Your task to perform on an android device: open app "Microsoft Excel" (install if not already installed) and enter user name: "kidnappers@icloud.com" and password: "Bessemerizes" Image 0: 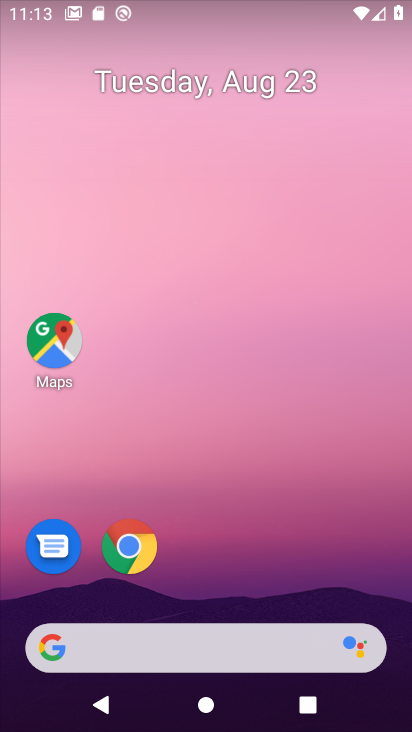
Step 0: drag from (182, 608) to (223, 208)
Your task to perform on an android device: open app "Microsoft Excel" (install if not already installed) and enter user name: "kidnappers@icloud.com" and password: "Bessemerizes" Image 1: 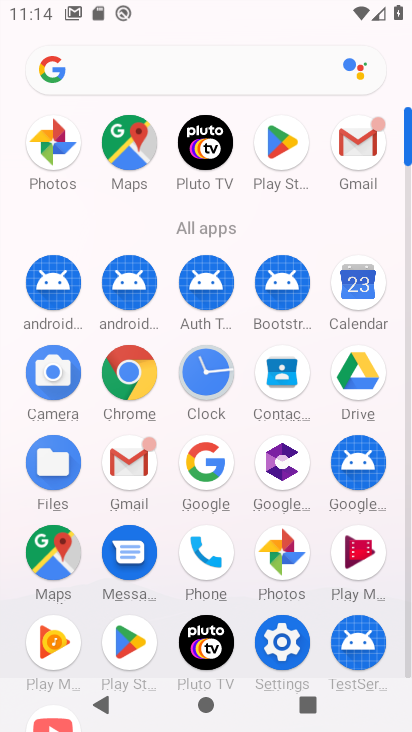
Step 1: click (271, 144)
Your task to perform on an android device: open app "Microsoft Excel" (install if not already installed) and enter user name: "kidnappers@icloud.com" and password: "Bessemerizes" Image 2: 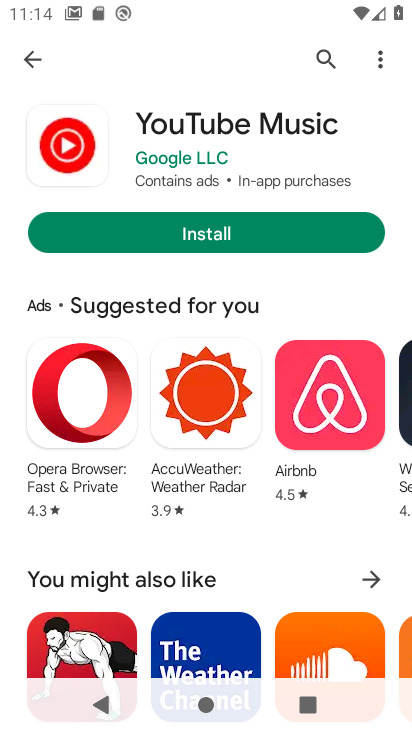
Step 2: click (19, 57)
Your task to perform on an android device: open app "Microsoft Excel" (install if not already installed) and enter user name: "kidnappers@icloud.com" and password: "Bessemerizes" Image 3: 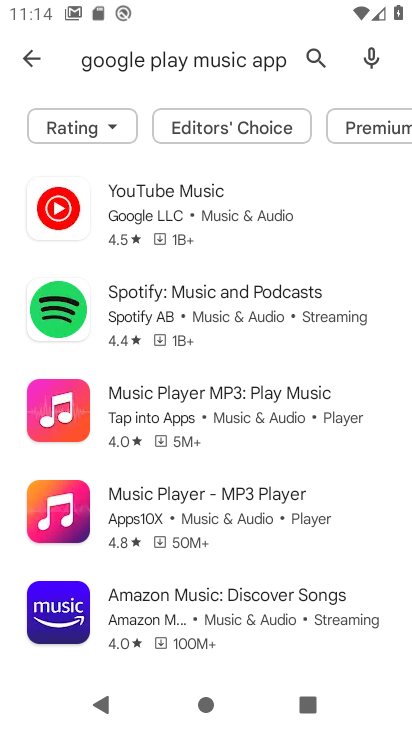
Step 3: click (30, 62)
Your task to perform on an android device: open app "Microsoft Excel" (install if not already installed) and enter user name: "kidnappers@icloud.com" and password: "Bessemerizes" Image 4: 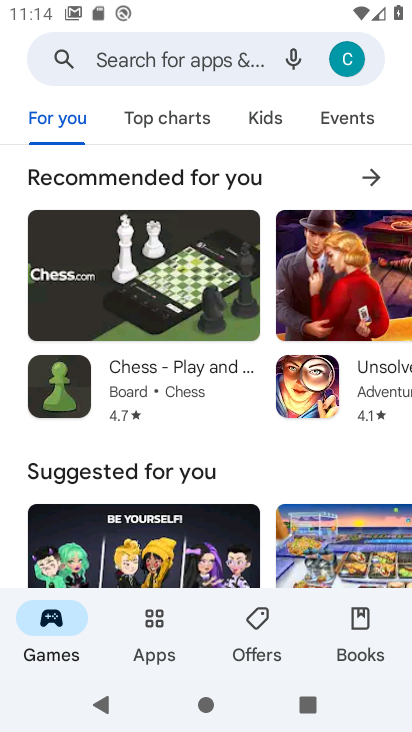
Step 4: click (180, 50)
Your task to perform on an android device: open app "Microsoft Excel" (install if not already installed) and enter user name: "kidnappers@icloud.com" and password: "Bessemerizes" Image 5: 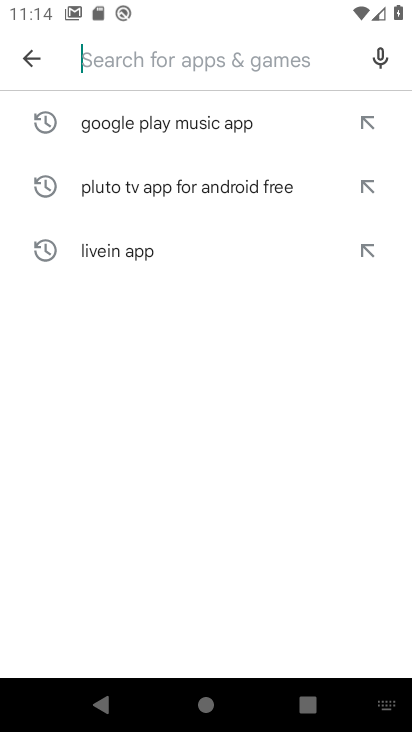
Step 5: type "Microsoft Excel "
Your task to perform on an android device: open app "Microsoft Excel" (install if not already installed) and enter user name: "kidnappers@icloud.com" and password: "Bessemerizes" Image 6: 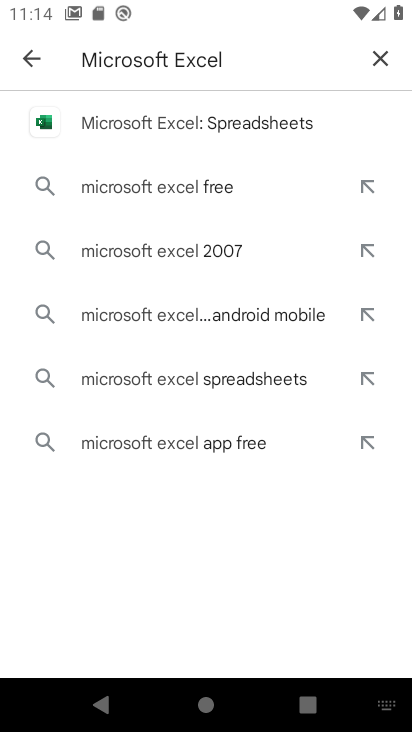
Step 6: click (145, 133)
Your task to perform on an android device: open app "Microsoft Excel" (install if not already installed) and enter user name: "kidnappers@icloud.com" and password: "Bessemerizes" Image 7: 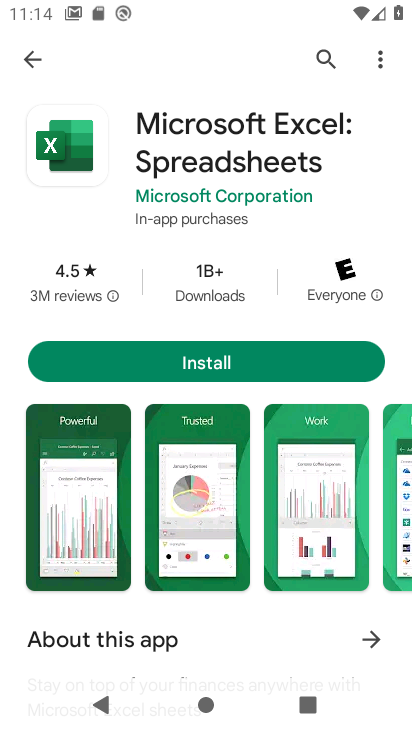
Step 7: click (208, 347)
Your task to perform on an android device: open app "Microsoft Excel" (install if not already installed) and enter user name: "kidnappers@icloud.com" and password: "Bessemerizes" Image 8: 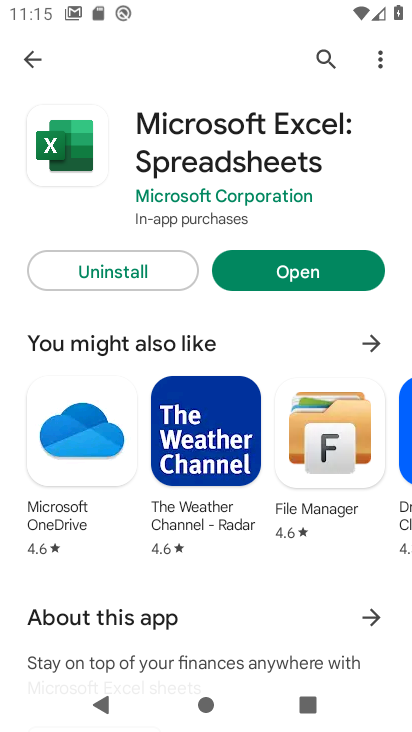
Step 8: task complete